Your task to perform on an android device: What's the weather going to be this weekend? Image 0: 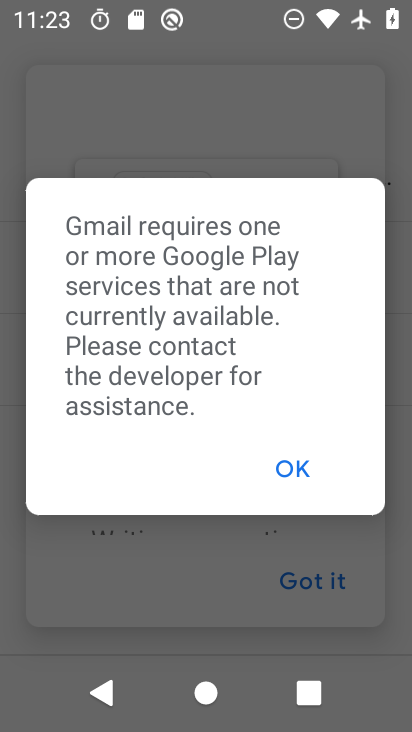
Step 0: press home button
Your task to perform on an android device: What's the weather going to be this weekend? Image 1: 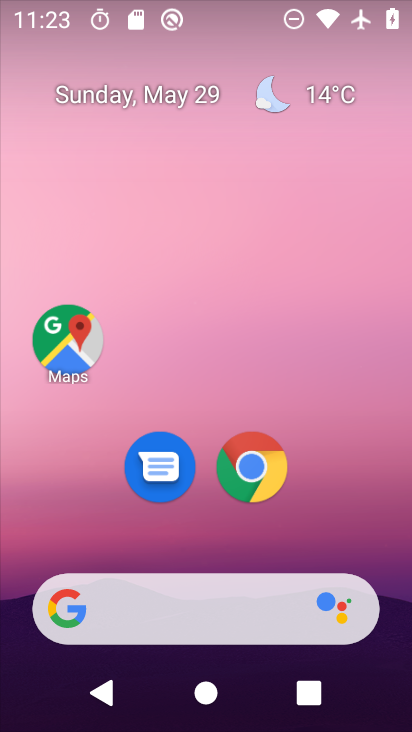
Step 1: drag from (205, 546) to (205, 125)
Your task to perform on an android device: What's the weather going to be this weekend? Image 2: 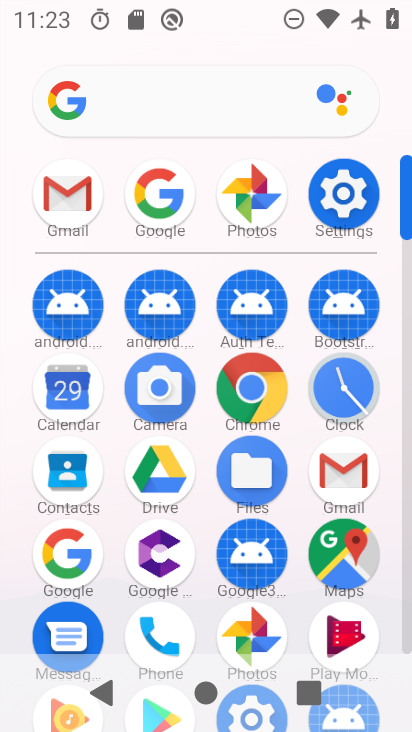
Step 2: click (57, 558)
Your task to perform on an android device: What's the weather going to be this weekend? Image 3: 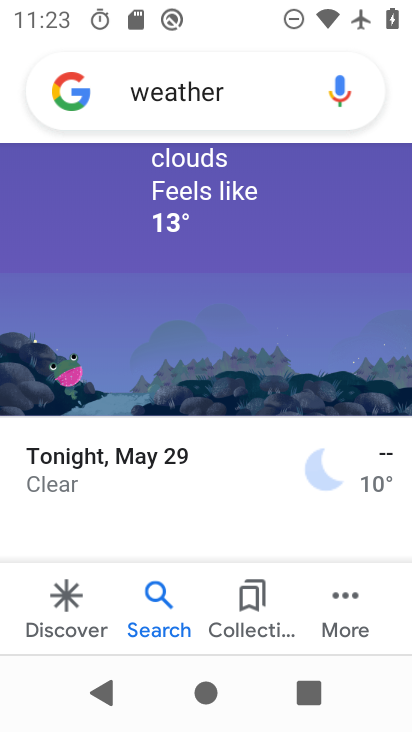
Step 3: click (259, 95)
Your task to perform on an android device: What's the weather going to be this weekend? Image 4: 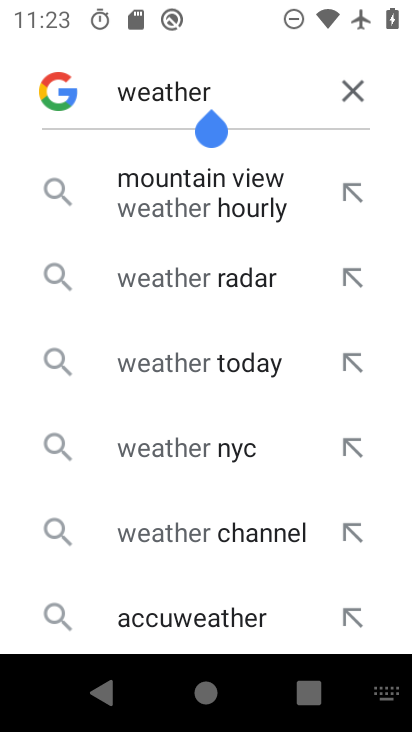
Step 4: click (351, 88)
Your task to perform on an android device: What's the weather going to be this weekend? Image 5: 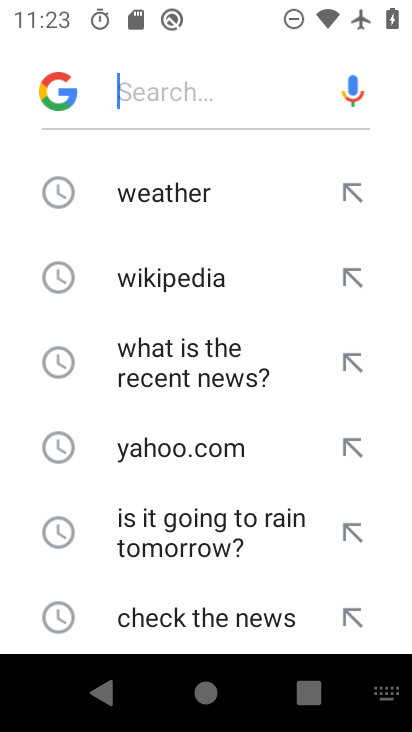
Step 5: click (155, 201)
Your task to perform on an android device: What's the weather going to be this weekend? Image 6: 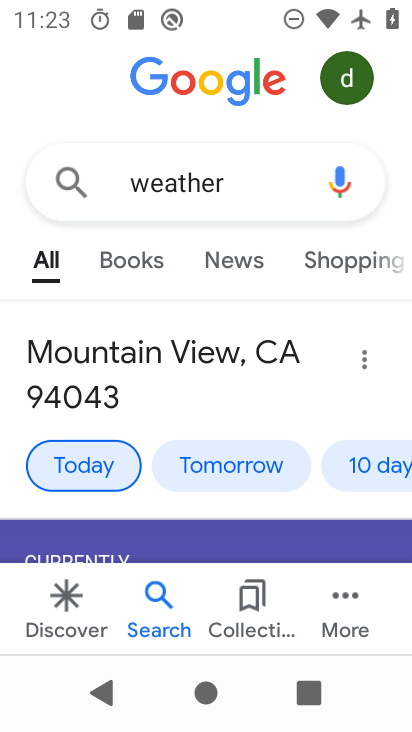
Step 6: drag from (192, 468) to (207, 237)
Your task to perform on an android device: What's the weather going to be this weekend? Image 7: 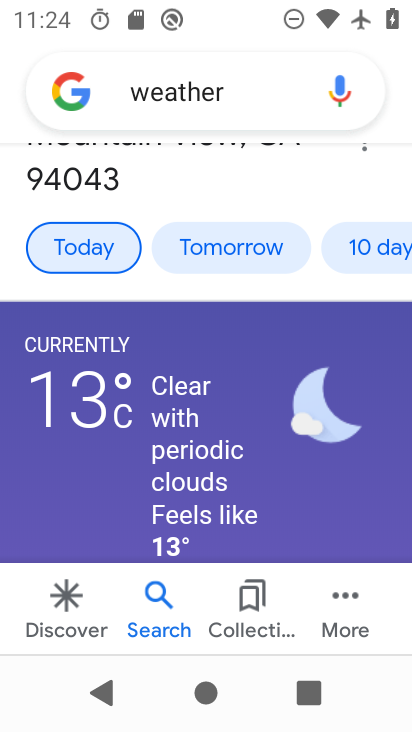
Step 7: drag from (213, 415) to (221, 204)
Your task to perform on an android device: What's the weather going to be this weekend? Image 8: 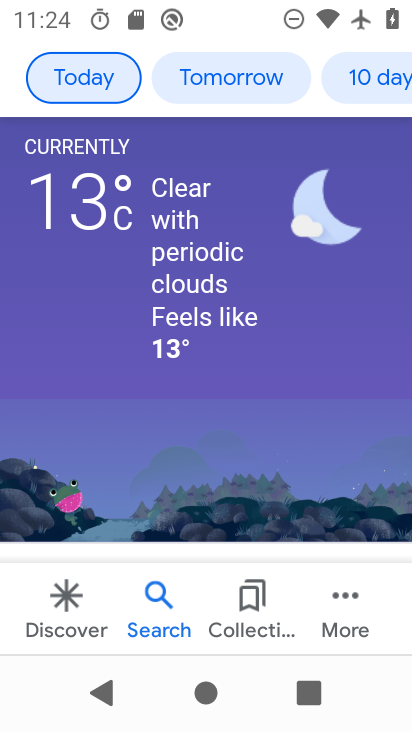
Step 8: click (362, 77)
Your task to perform on an android device: What's the weather going to be this weekend? Image 9: 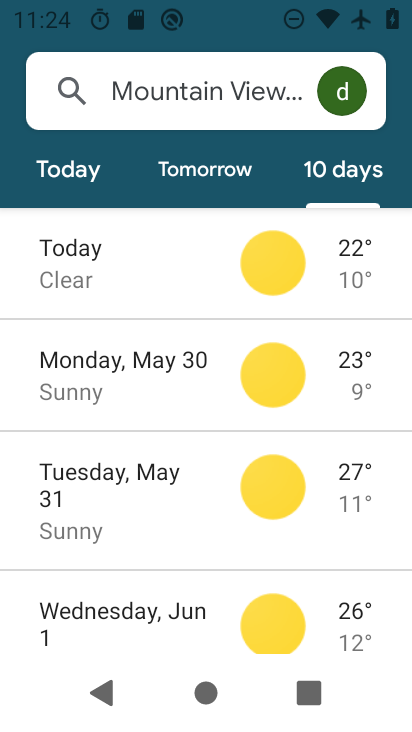
Step 9: drag from (155, 561) to (179, 383)
Your task to perform on an android device: What's the weather going to be this weekend? Image 10: 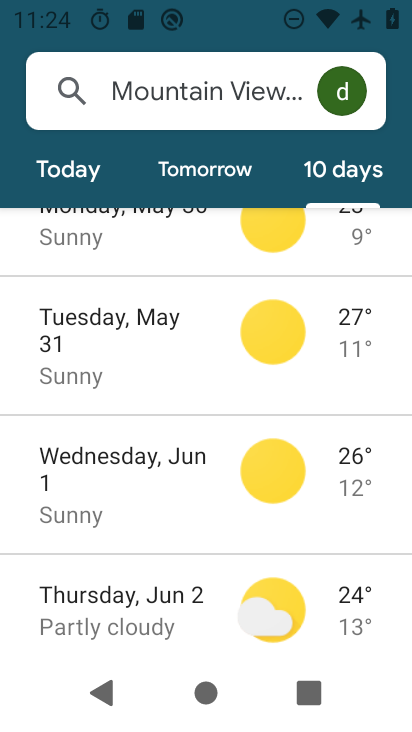
Step 10: drag from (203, 545) to (207, 296)
Your task to perform on an android device: What's the weather going to be this weekend? Image 11: 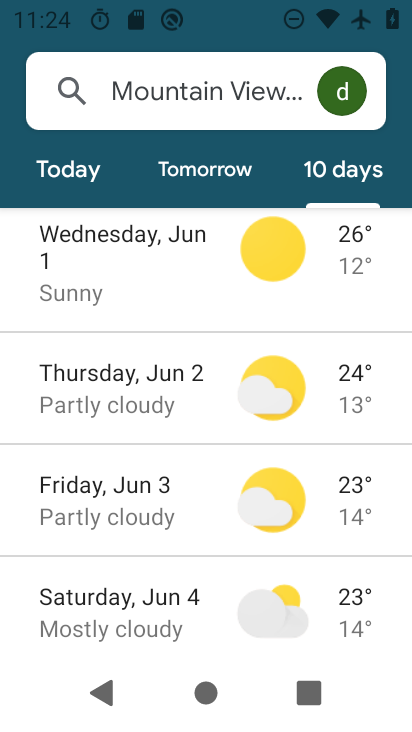
Step 11: click (200, 562)
Your task to perform on an android device: What's the weather going to be this weekend? Image 12: 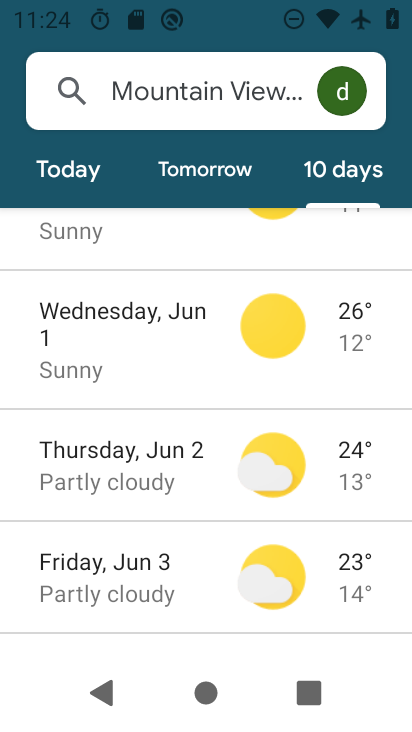
Step 12: task complete